Your task to perform on an android device: Open privacy settings Image 0: 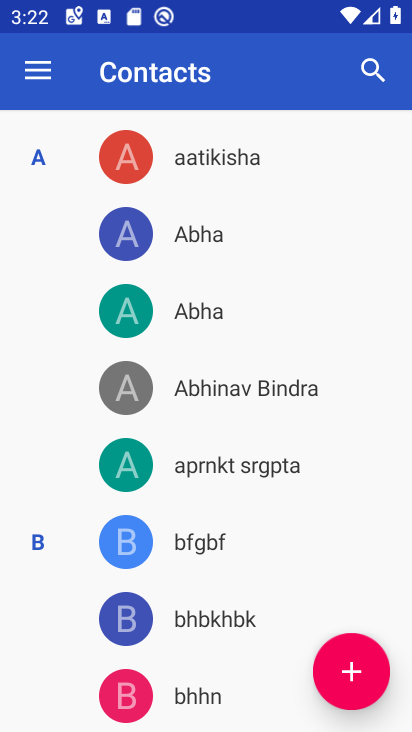
Step 0: press home button
Your task to perform on an android device: Open privacy settings Image 1: 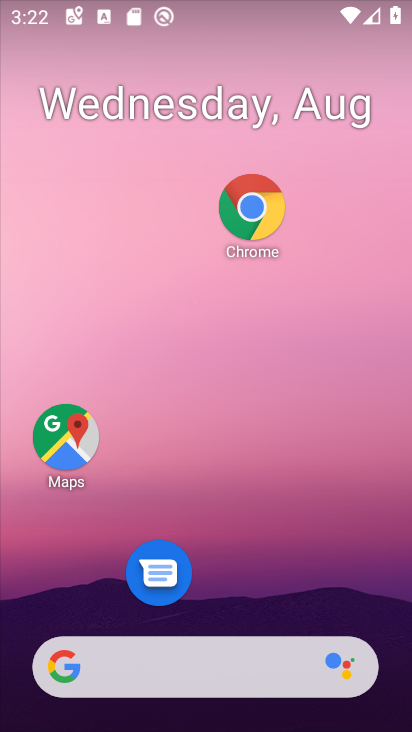
Step 1: drag from (268, 559) to (302, 17)
Your task to perform on an android device: Open privacy settings Image 2: 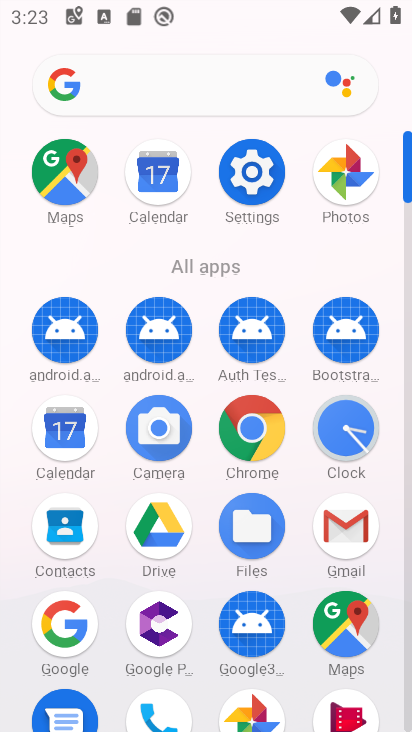
Step 2: click (256, 166)
Your task to perform on an android device: Open privacy settings Image 3: 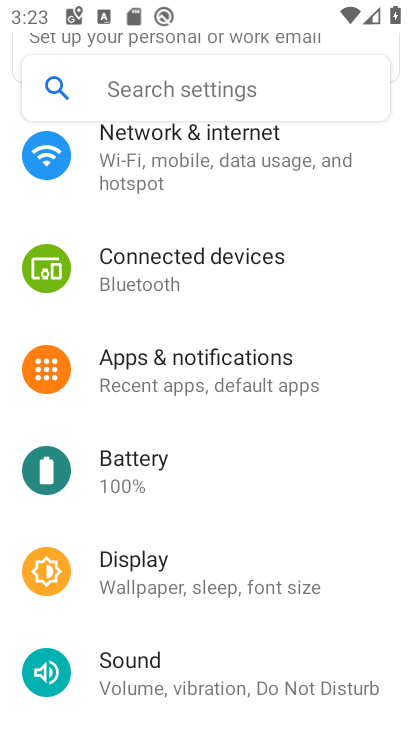
Step 3: drag from (226, 473) to (243, 47)
Your task to perform on an android device: Open privacy settings Image 4: 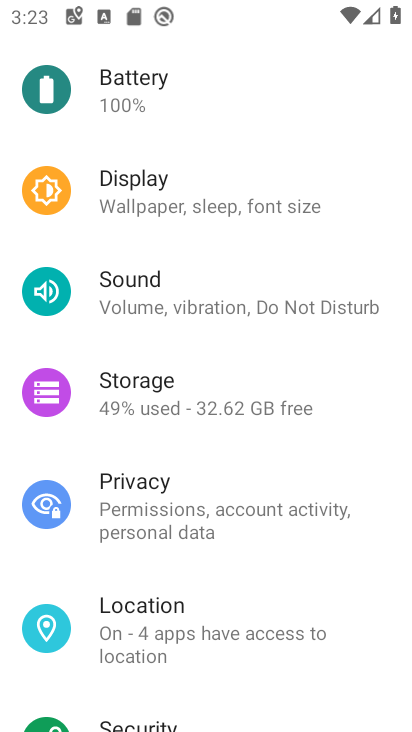
Step 4: click (206, 496)
Your task to perform on an android device: Open privacy settings Image 5: 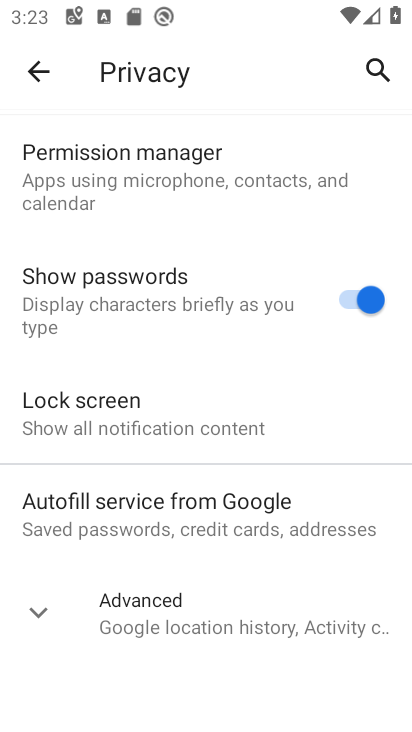
Step 5: task complete